Your task to perform on an android device: turn off notifications in google photos Image 0: 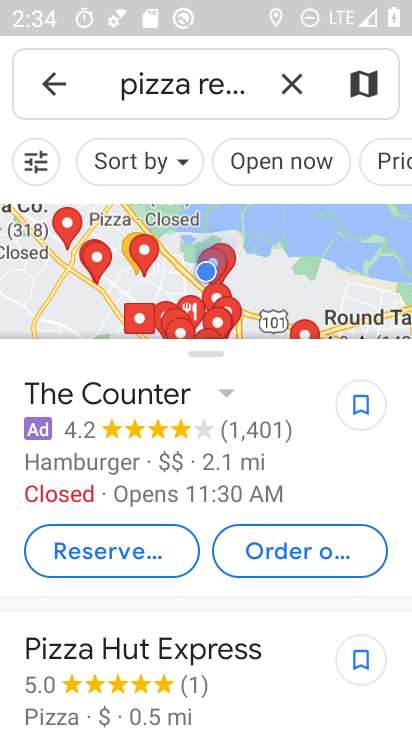
Step 0: press home button
Your task to perform on an android device: turn off notifications in google photos Image 1: 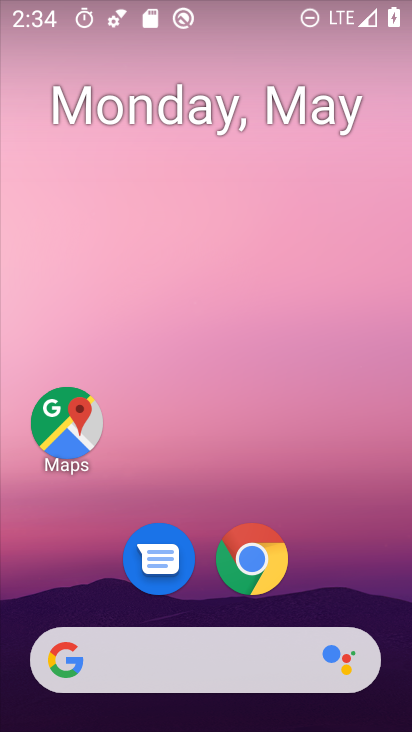
Step 1: drag from (376, 621) to (385, 48)
Your task to perform on an android device: turn off notifications in google photos Image 2: 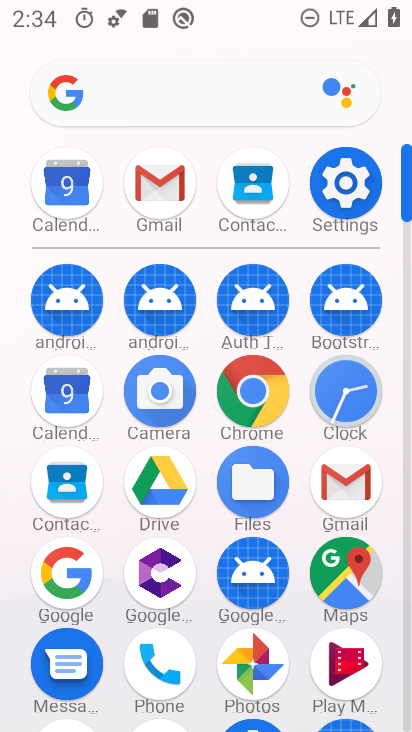
Step 2: click (254, 666)
Your task to perform on an android device: turn off notifications in google photos Image 3: 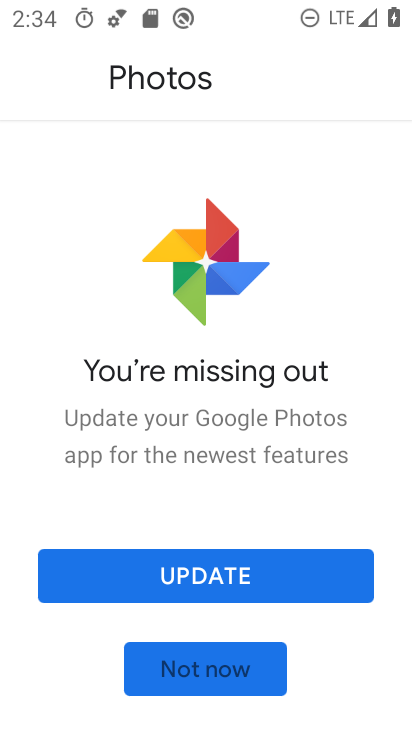
Step 3: click (200, 574)
Your task to perform on an android device: turn off notifications in google photos Image 4: 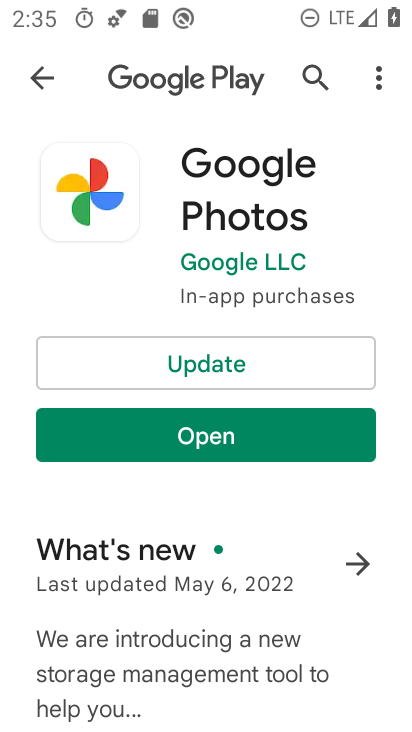
Step 4: click (200, 443)
Your task to perform on an android device: turn off notifications in google photos Image 5: 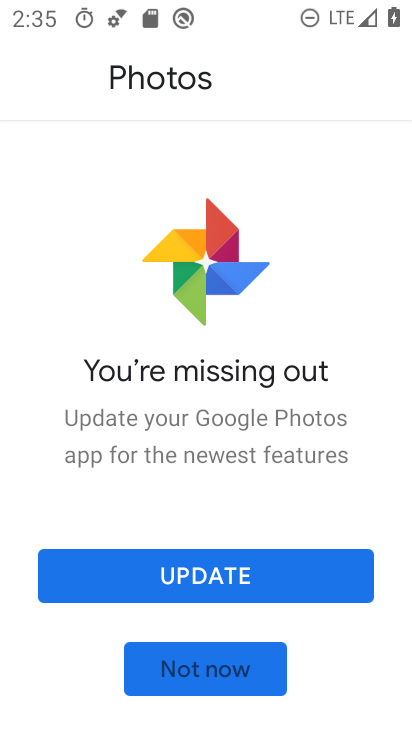
Step 5: click (210, 681)
Your task to perform on an android device: turn off notifications in google photos Image 6: 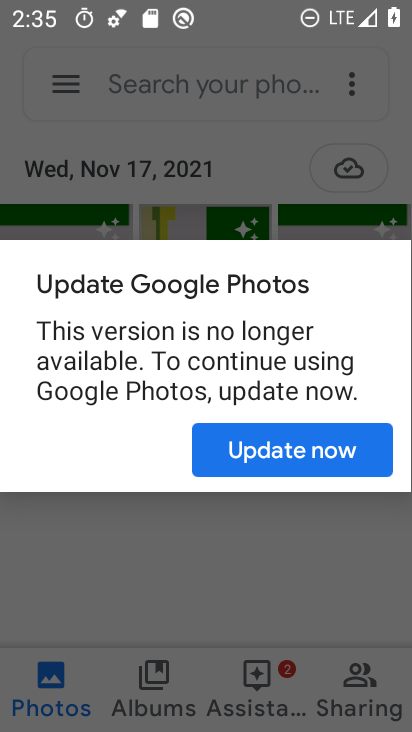
Step 6: click (249, 449)
Your task to perform on an android device: turn off notifications in google photos Image 7: 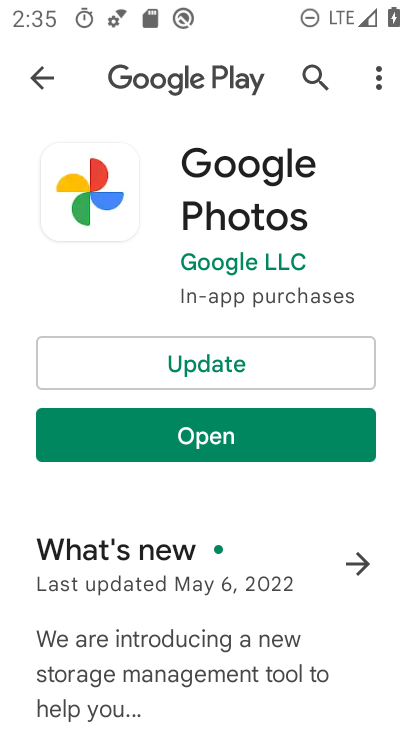
Step 7: click (226, 448)
Your task to perform on an android device: turn off notifications in google photos Image 8: 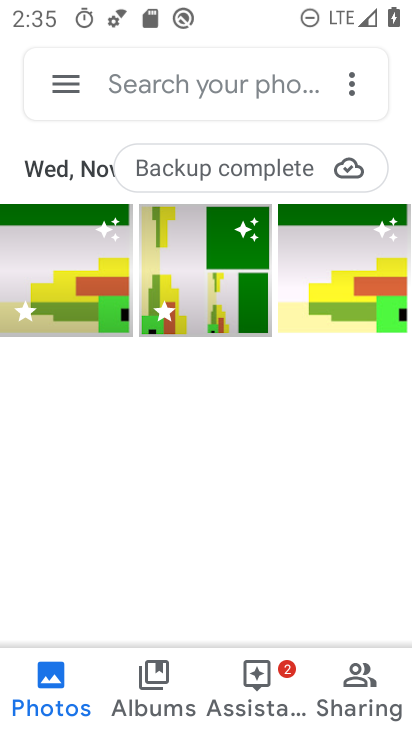
Step 8: click (58, 87)
Your task to perform on an android device: turn off notifications in google photos Image 9: 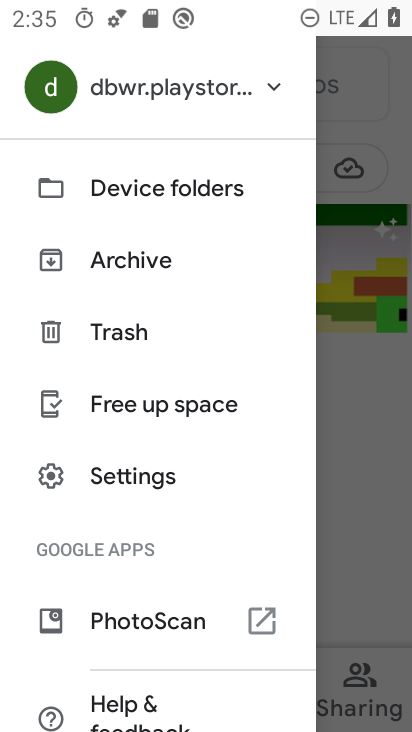
Step 9: click (122, 477)
Your task to perform on an android device: turn off notifications in google photos Image 10: 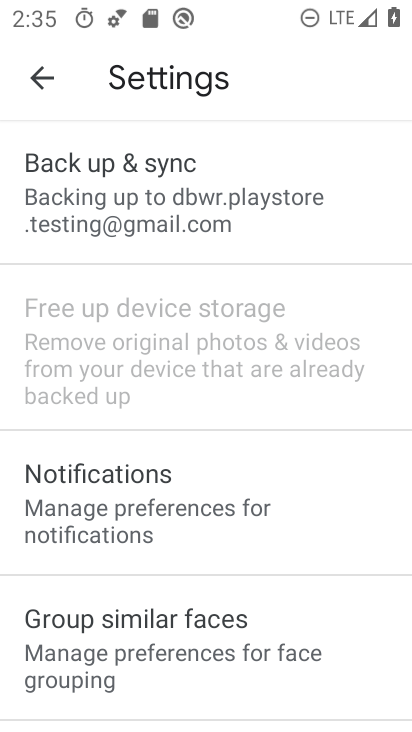
Step 10: click (118, 514)
Your task to perform on an android device: turn off notifications in google photos Image 11: 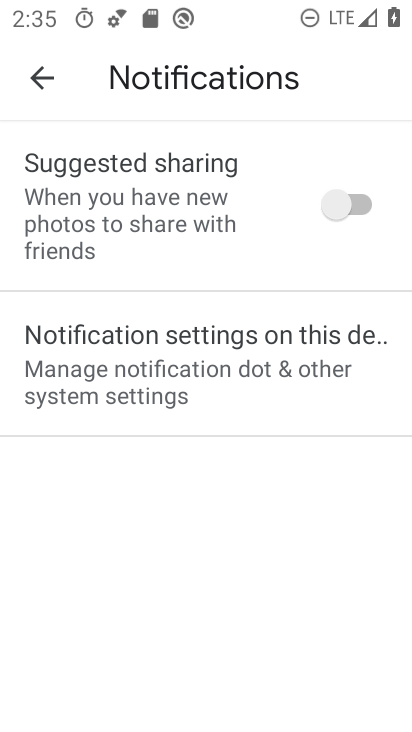
Step 11: click (193, 367)
Your task to perform on an android device: turn off notifications in google photos Image 12: 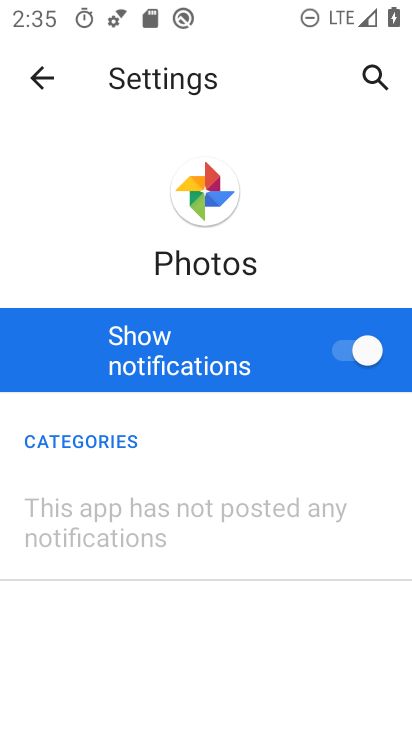
Step 12: click (372, 349)
Your task to perform on an android device: turn off notifications in google photos Image 13: 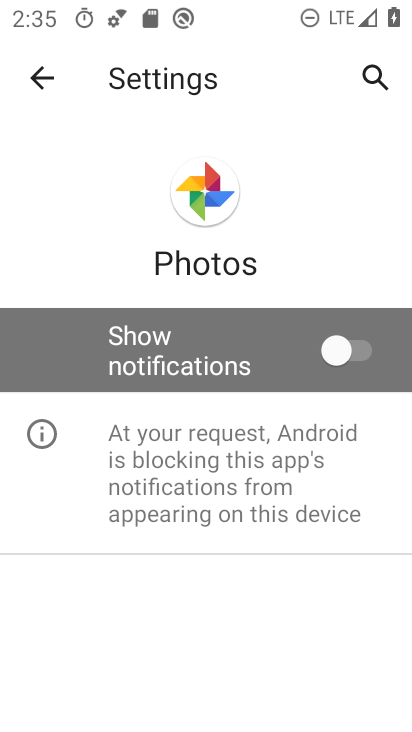
Step 13: task complete